Your task to perform on an android device: turn off notifications settings in the gmail app Image 0: 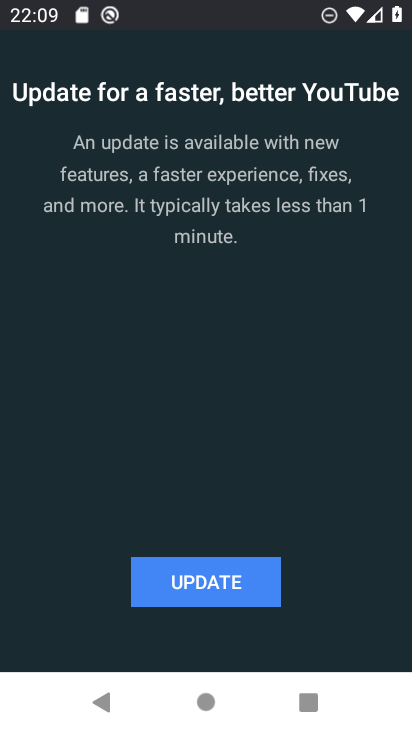
Step 0: press home button
Your task to perform on an android device: turn off notifications settings in the gmail app Image 1: 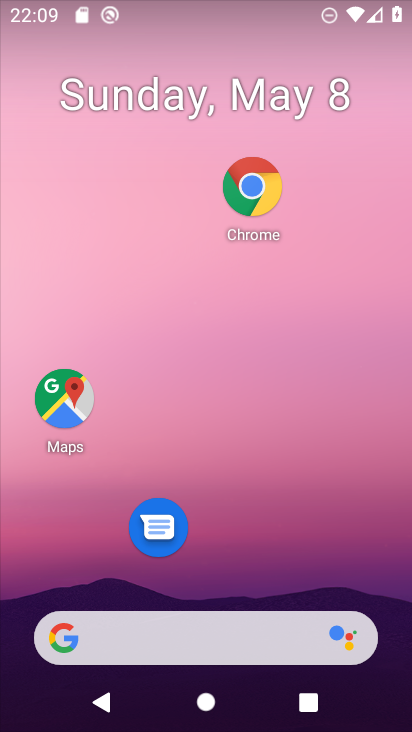
Step 1: drag from (349, 540) to (332, 136)
Your task to perform on an android device: turn off notifications settings in the gmail app Image 2: 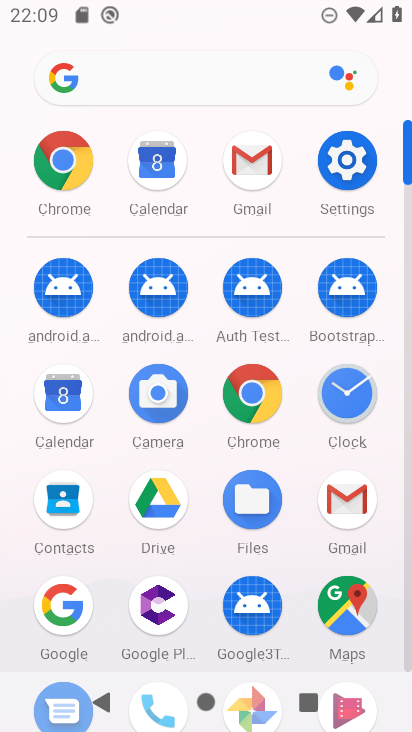
Step 2: drag from (289, 594) to (310, 411)
Your task to perform on an android device: turn off notifications settings in the gmail app Image 3: 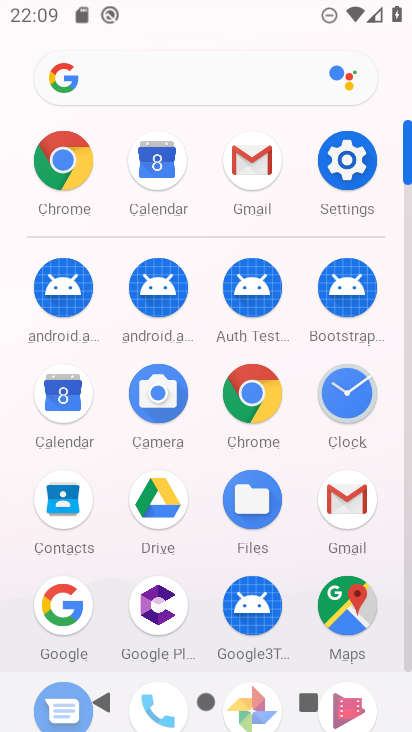
Step 3: click (296, 549)
Your task to perform on an android device: turn off notifications settings in the gmail app Image 4: 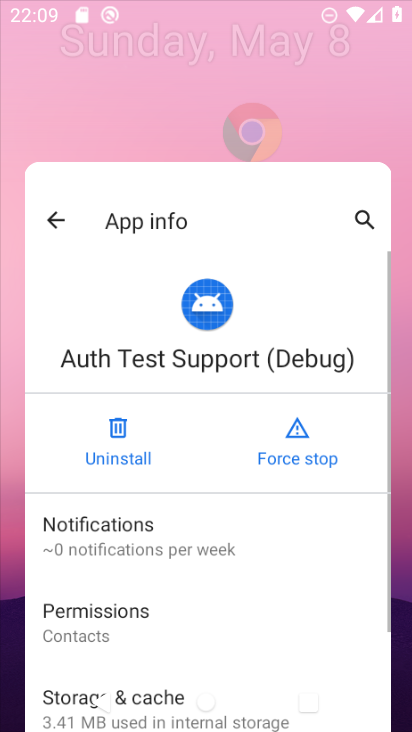
Step 4: drag from (256, 570) to (270, 242)
Your task to perform on an android device: turn off notifications settings in the gmail app Image 5: 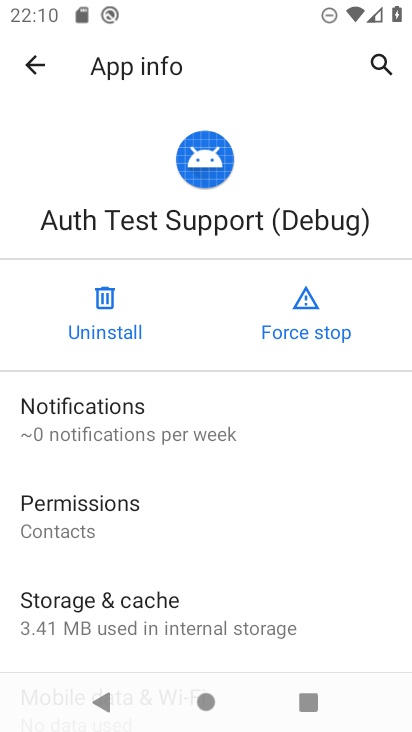
Step 5: press home button
Your task to perform on an android device: turn off notifications settings in the gmail app Image 6: 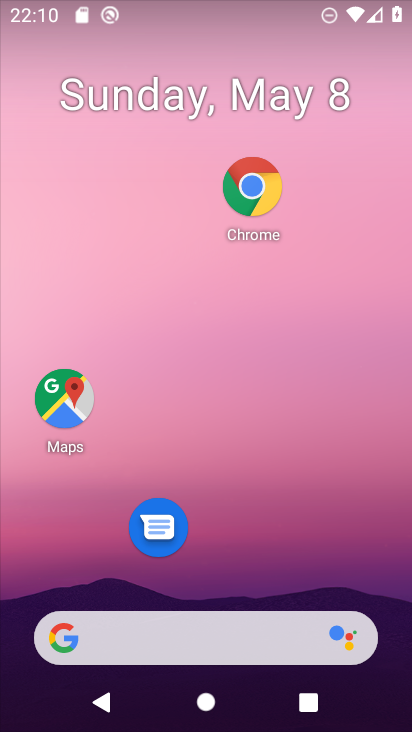
Step 6: drag from (267, 534) to (320, 259)
Your task to perform on an android device: turn off notifications settings in the gmail app Image 7: 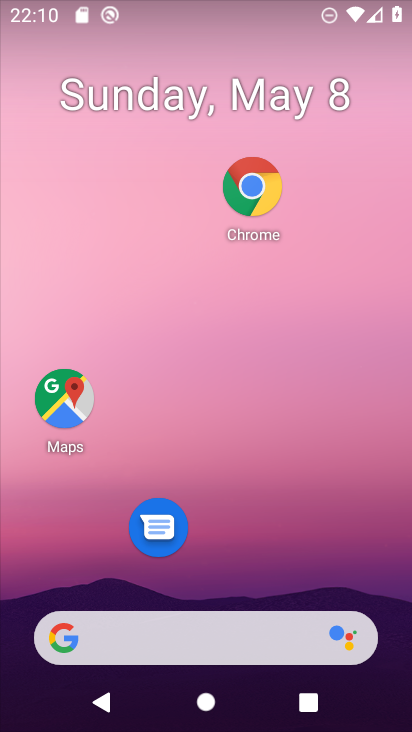
Step 7: drag from (237, 544) to (276, 286)
Your task to perform on an android device: turn off notifications settings in the gmail app Image 8: 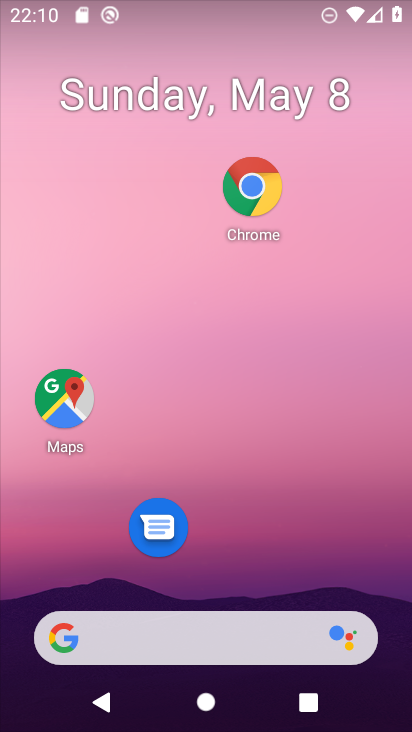
Step 8: drag from (254, 595) to (324, 255)
Your task to perform on an android device: turn off notifications settings in the gmail app Image 9: 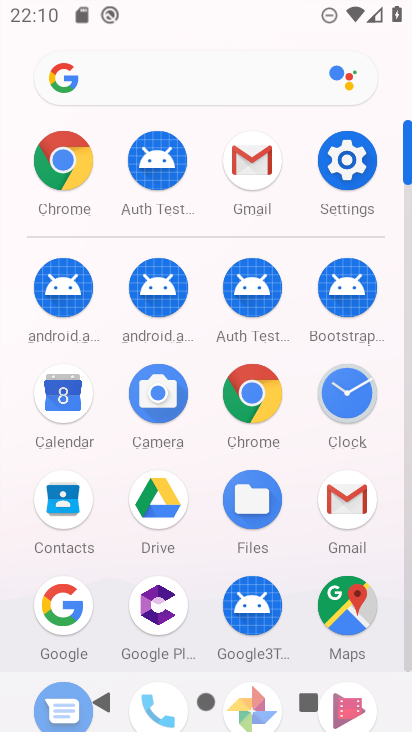
Step 9: drag from (293, 619) to (333, 212)
Your task to perform on an android device: turn off notifications settings in the gmail app Image 10: 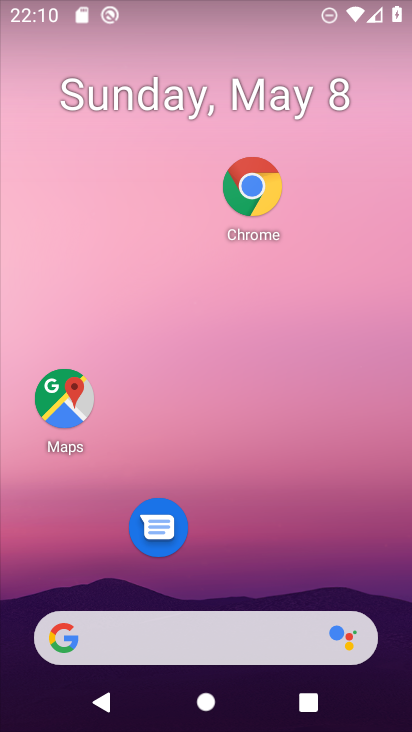
Step 10: drag from (258, 560) to (344, 186)
Your task to perform on an android device: turn off notifications settings in the gmail app Image 11: 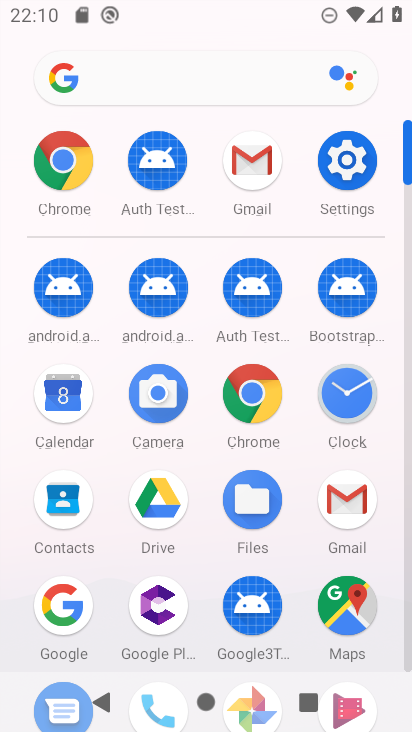
Step 11: click (338, 499)
Your task to perform on an android device: turn off notifications settings in the gmail app Image 12: 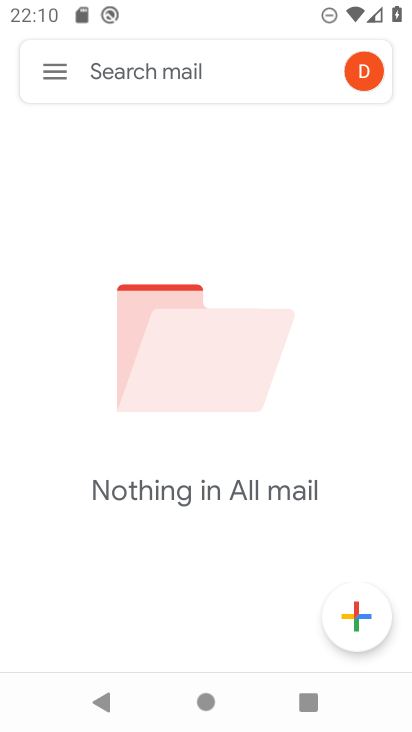
Step 12: click (53, 67)
Your task to perform on an android device: turn off notifications settings in the gmail app Image 13: 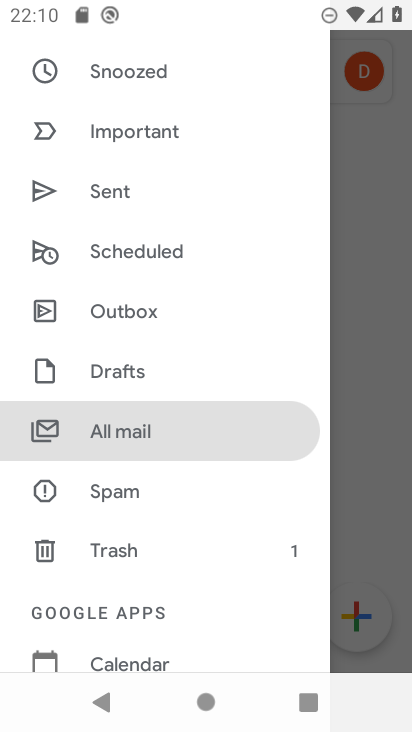
Step 13: drag from (176, 585) to (267, 68)
Your task to perform on an android device: turn off notifications settings in the gmail app Image 14: 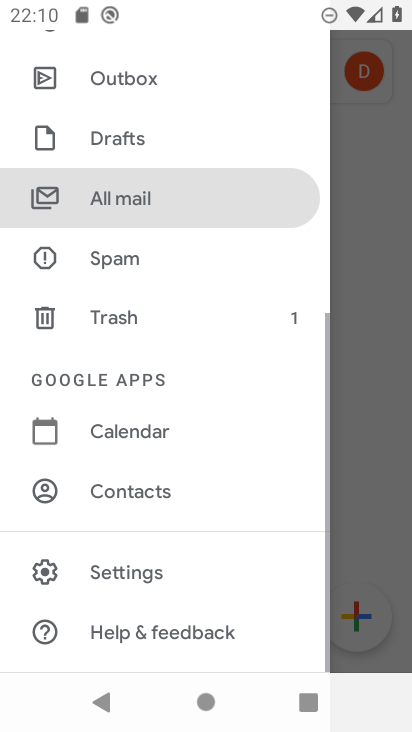
Step 14: drag from (192, 532) to (244, 100)
Your task to perform on an android device: turn off notifications settings in the gmail app Image 15: 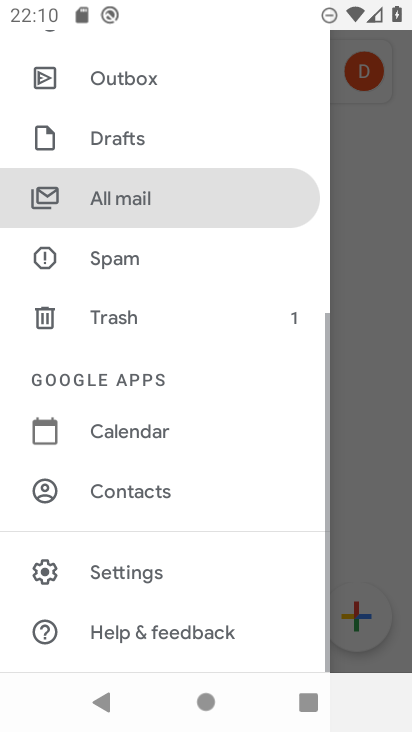
Step 15: drag from (132, 479) to (240, 6)
Your task to perform on an android device: turn off notifications settings in the gmail app Image 16: 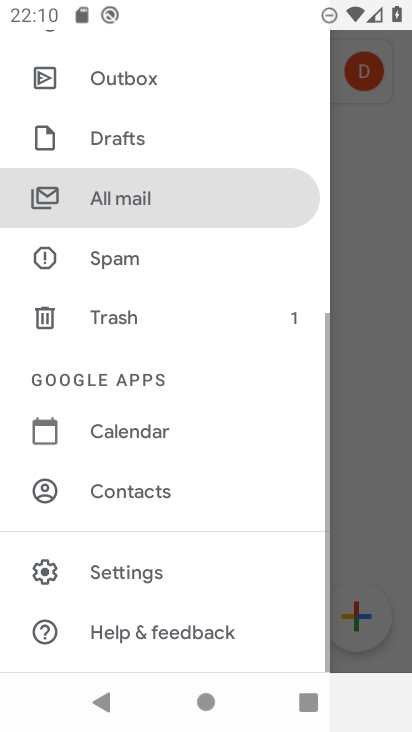
Step 16: drag from (167, 479) to (222, 78)
Your task to perform on an android device: turn off notifications settings in the gmail app Image 17: 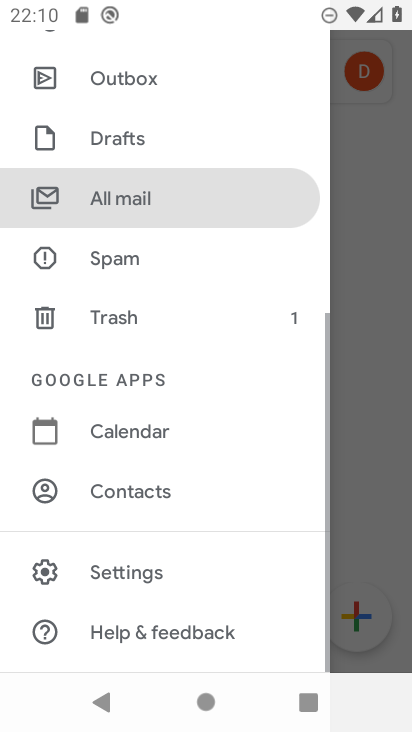
Step 17: click (138, 572)
Your task to perform on an android device: turn off notifications settings in the gmail app Image 18: 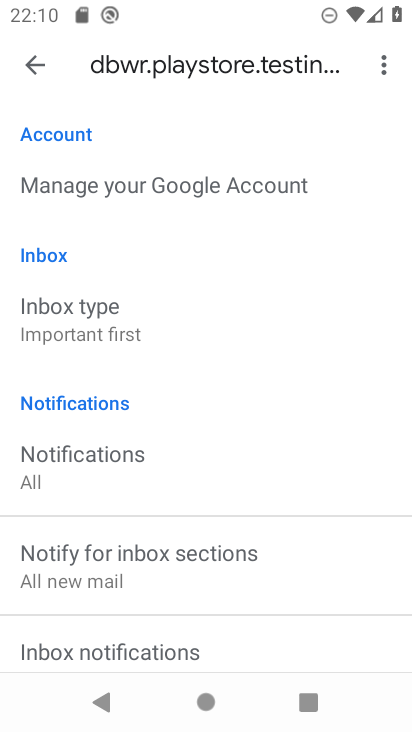
Step 18: click (103, 487)
Your task to perform on an android device: turn off notifications settings in the gmail app Image 19: 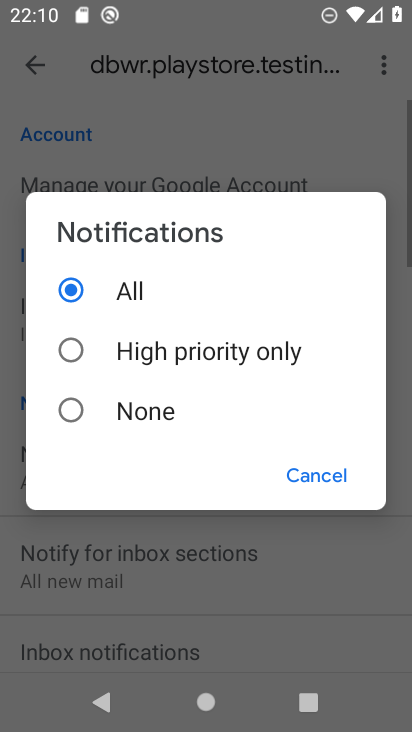
Step 19: click (136, 423)
Your task to perform on an android device: turn off notifications settings in the gmail app Image 20: 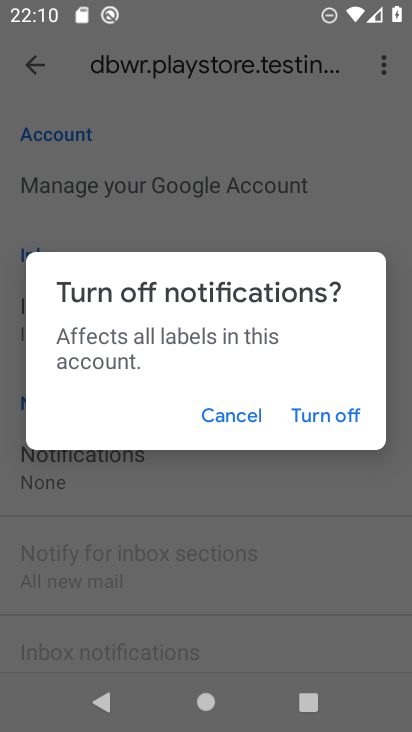
Step 20: click (320, 412)
Your task to perform on an android device: turn off notifications settings in the gmail app Image 21: 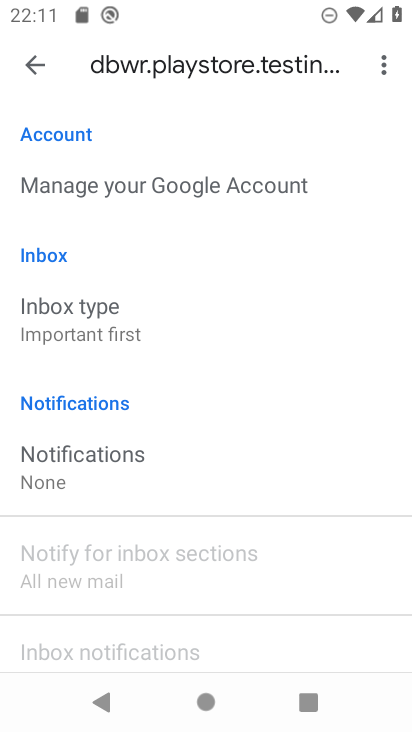
Step 21: task complete